Your task to perform on an android device: Open Yahoo.com Image 0: 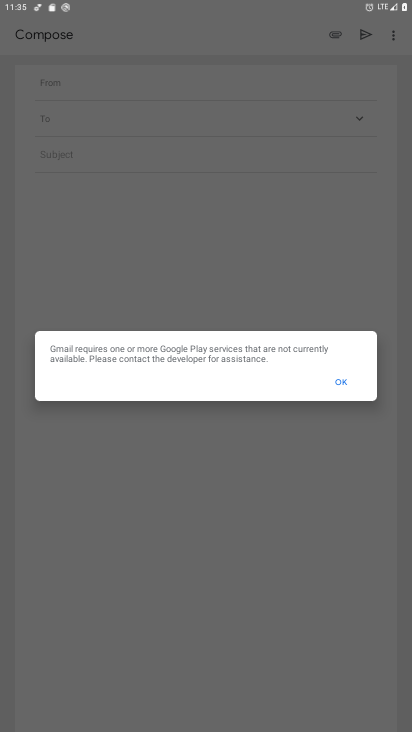
Step 0: press home button
Your task to perform on an android device: Open Yahoo.com Image 1: 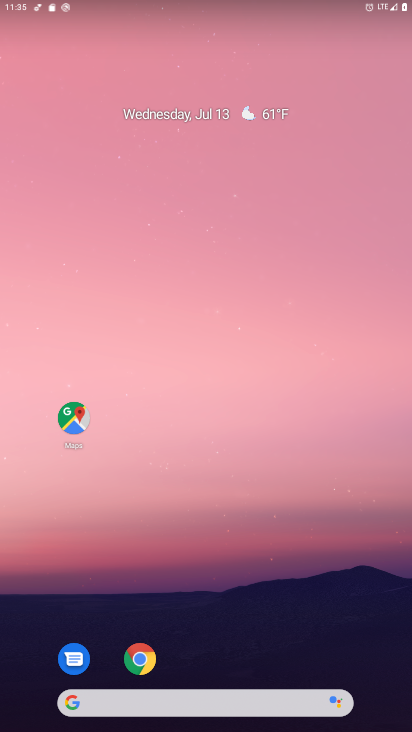
Step 1: click (139, 652)
Your task to perform on an android device: Open Yahoo.com Image 2: 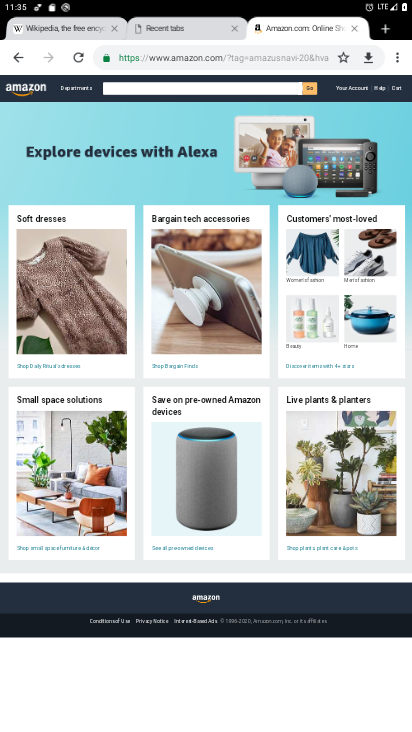
Step 2: click (232, 27)
Your task to perform on an android device: Open Yahoo.com Image 3: 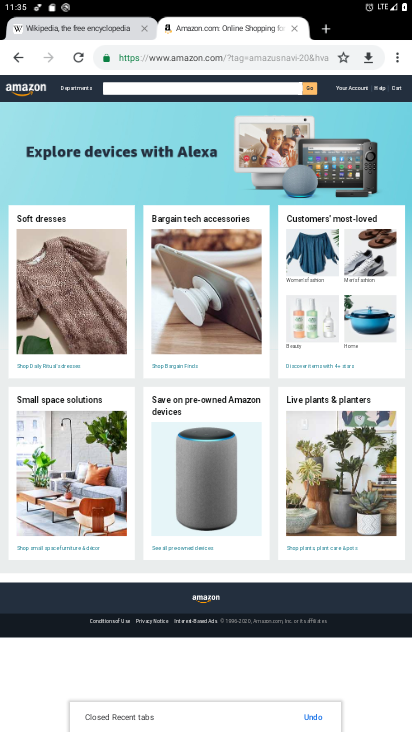
Step 3: click (328, 26)
Your task to perform on an android device: Open Yahoo.com Image 4: 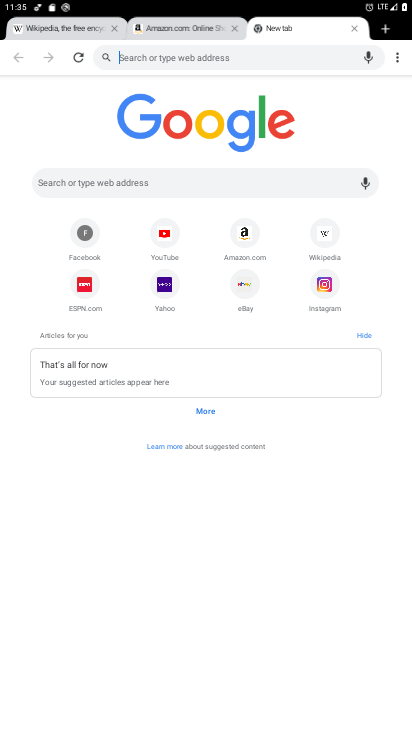
Step 4: click (164, 283)
Your task to perform on an android device: Open Yahoo.com Image 5: 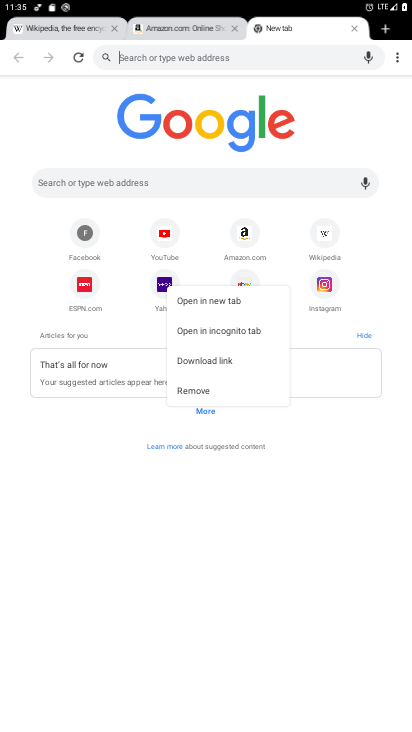
Step 5: click (158, 282)
Your task to perform on an android device: Open Yahoo.com Image 6: 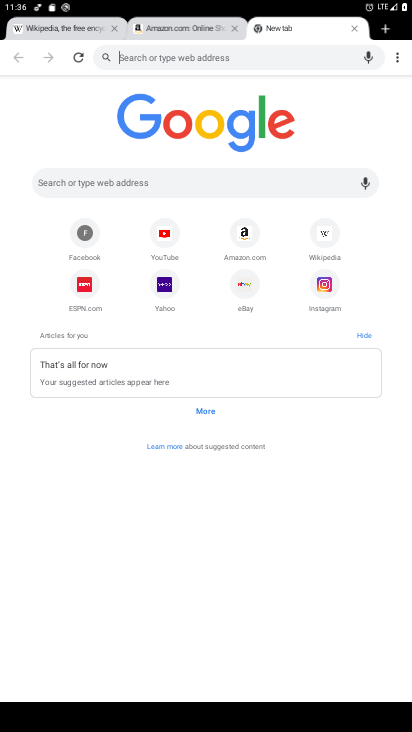
Step 6: click (164, 281)
Your task to perform on an android device: Open Yahoo.com Image 7: 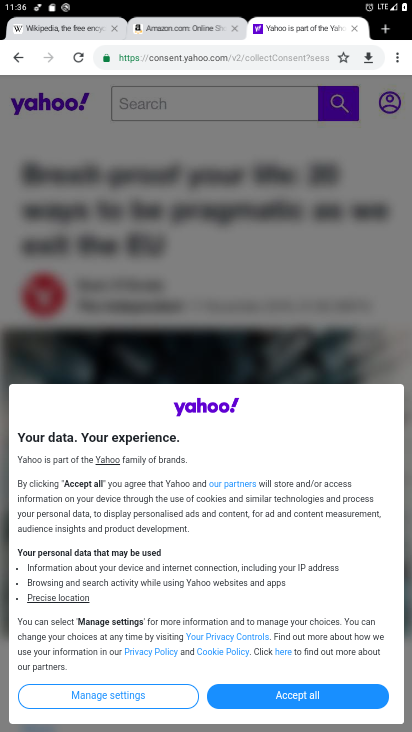
Step 7: click (302, 694)
Your task to perform on an android device: Open Yahoo.com Image 8: 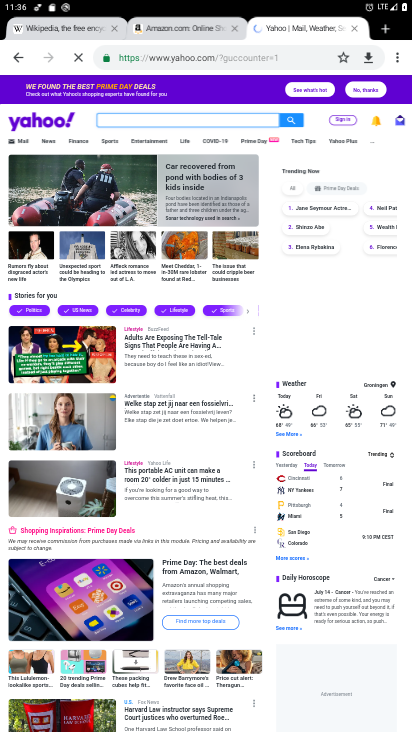
Step 8: task complete